Your task to perform on an android device: Go to eBay Image 0: 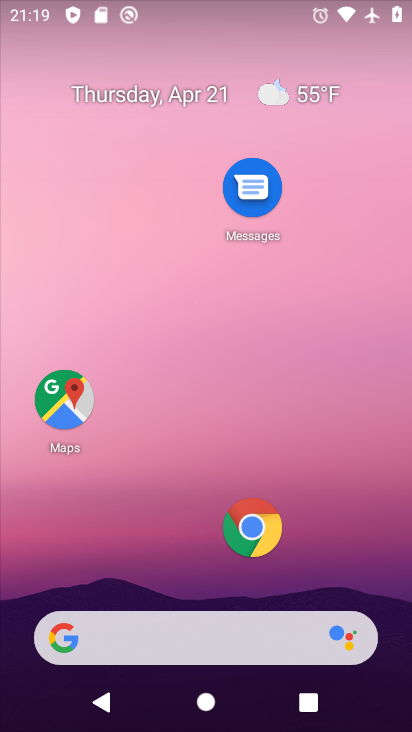
Step 0: drag from (188, 630) to (322, 80)
Your task to perform on an android device: Go to eBay Image 1: 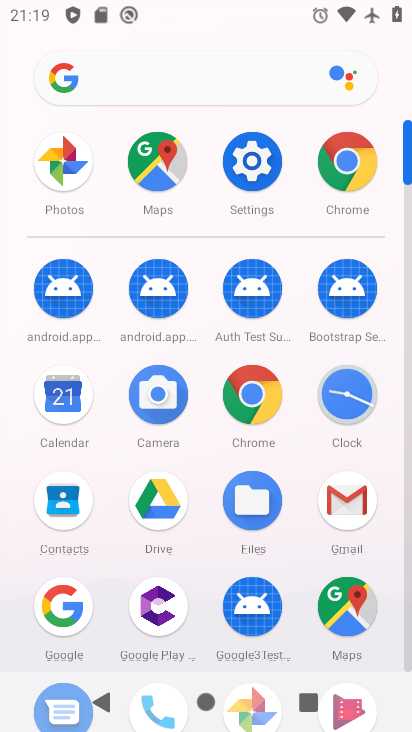
Step 1: click (336, 167)
Your task to perform on an android device: Go to eBay Image 2: 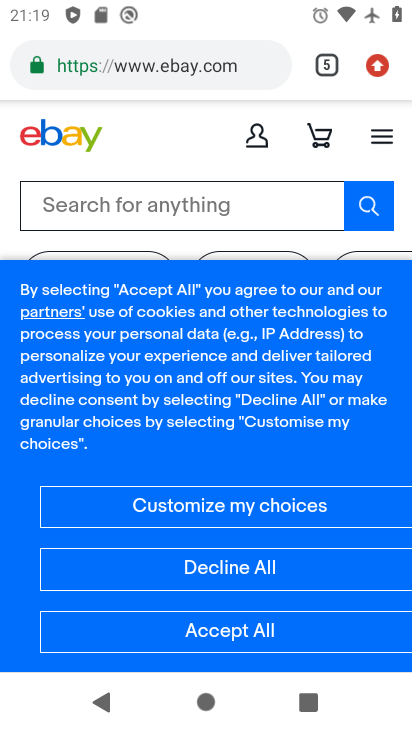
Step 2: task complete